Your task to perform on an android device: open app "Google Pay: Save, Pay, Manage" (install if not already installed) Image 0: 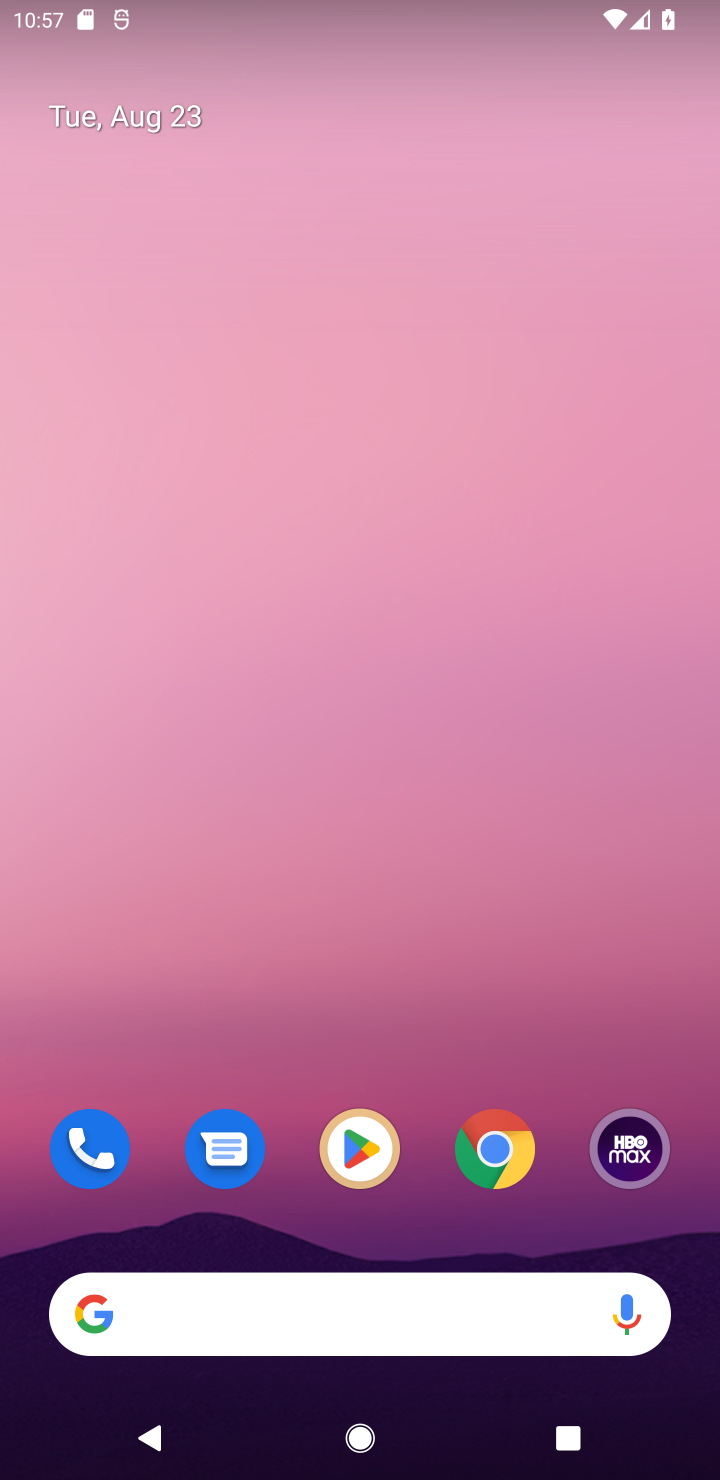
Step 0: click (358, 1176)
Your task to perform on an android device: open app "Google Pay: Save, Pay, Manage" (install if not already installed) Image 1: 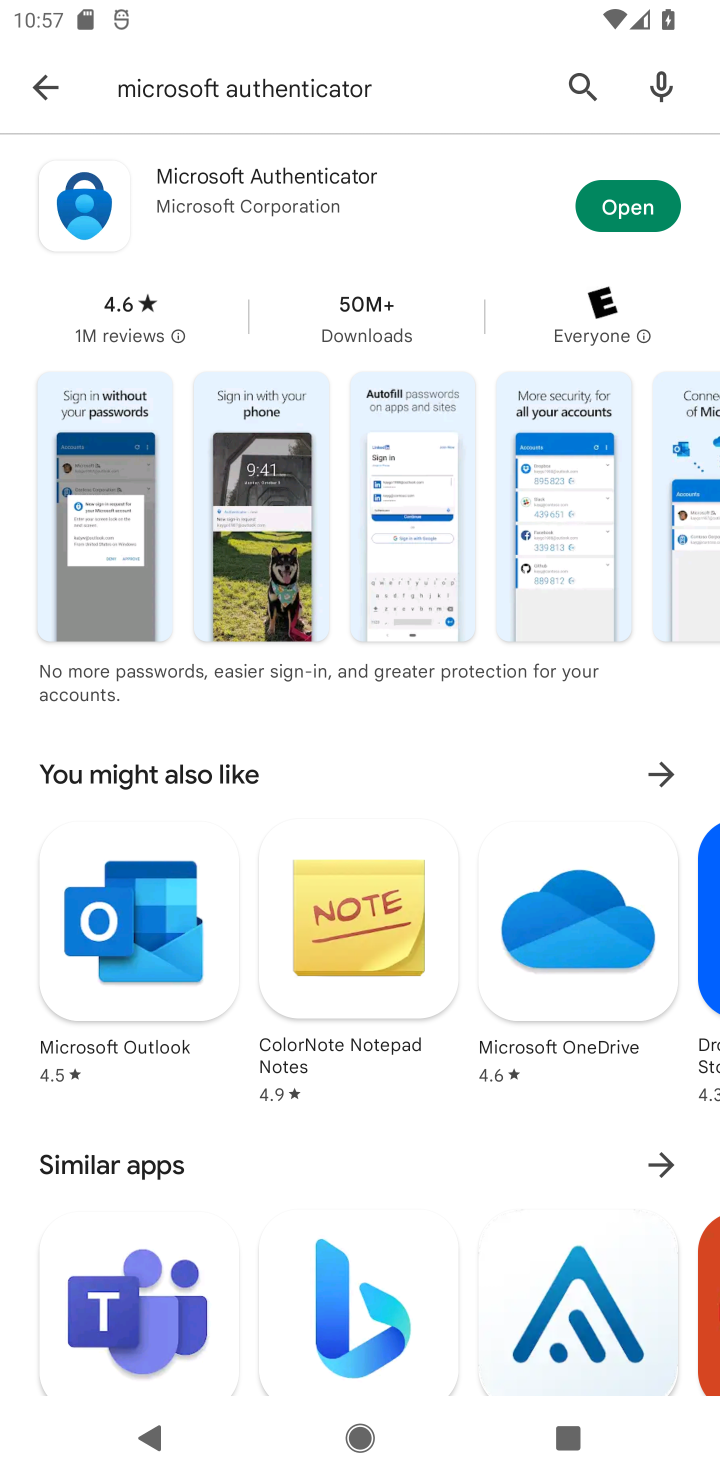
Step 1: click (590, 96)
Your task to perform on an android device: open app "Google Pay: Save, Pay, Manage" (install if not already installed) Image 2: 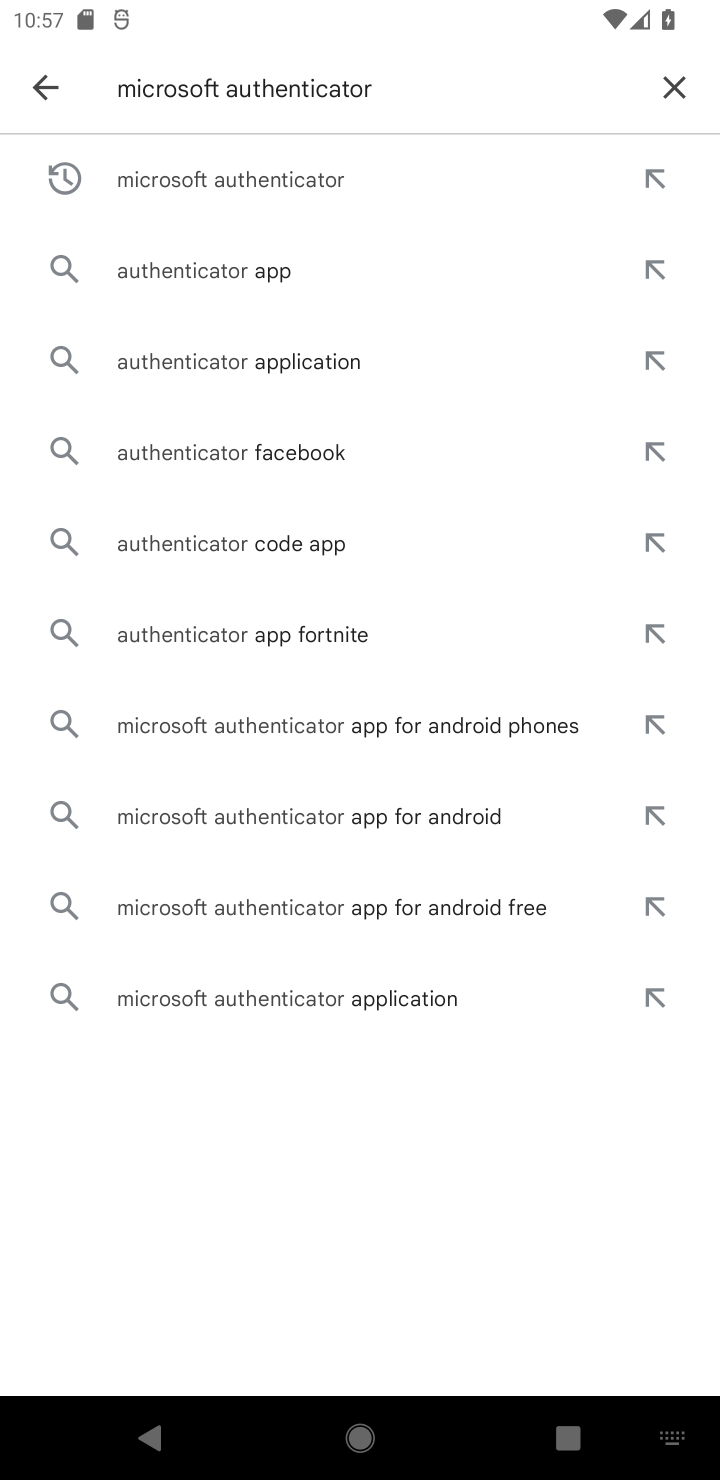
Step 2: click (665, 96)
Your task to perform on an android device: open app "Google Pay: Save, Pay, Manage" (install if not already installed) Image 3: 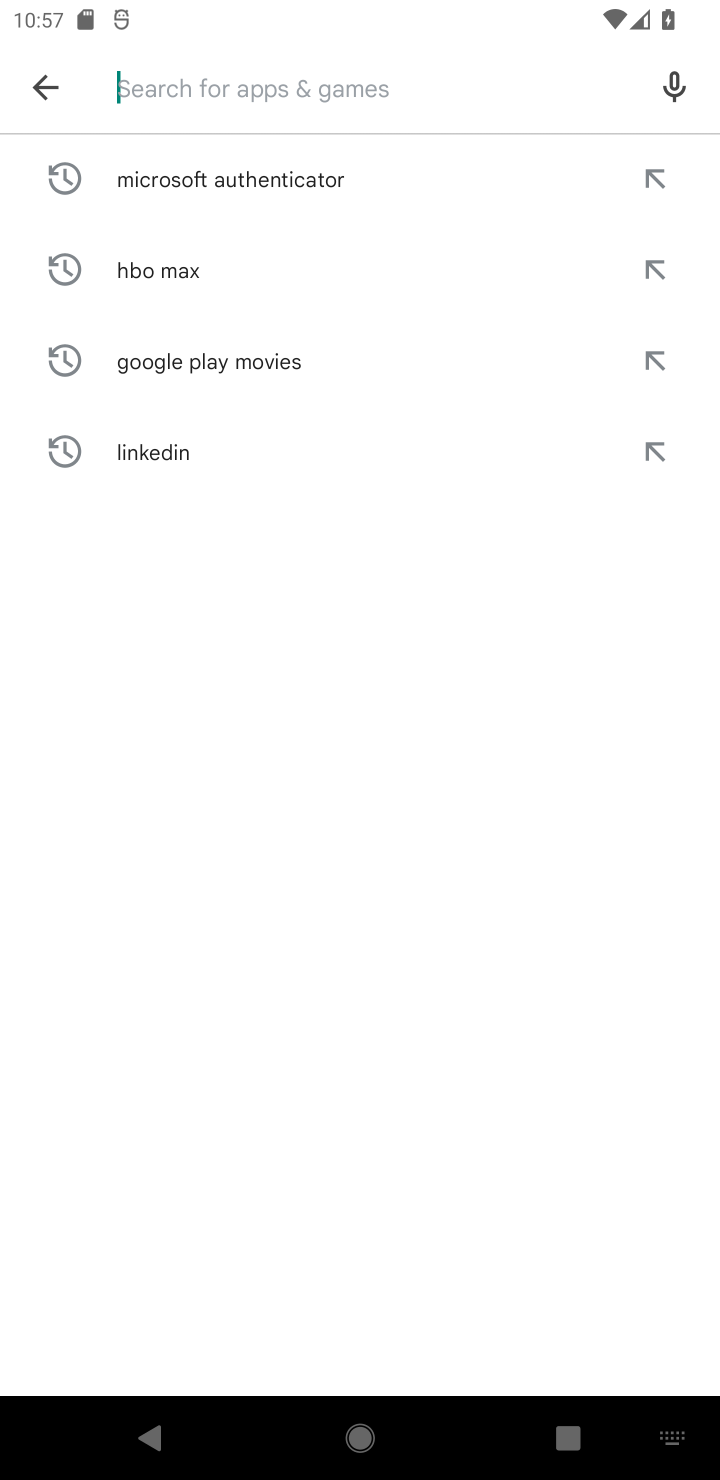
Step 3: type "google play"
Your task to perform on an android device: open app "Google Pay: Save, Pay, Manage" (install if not already installed) Image 4: 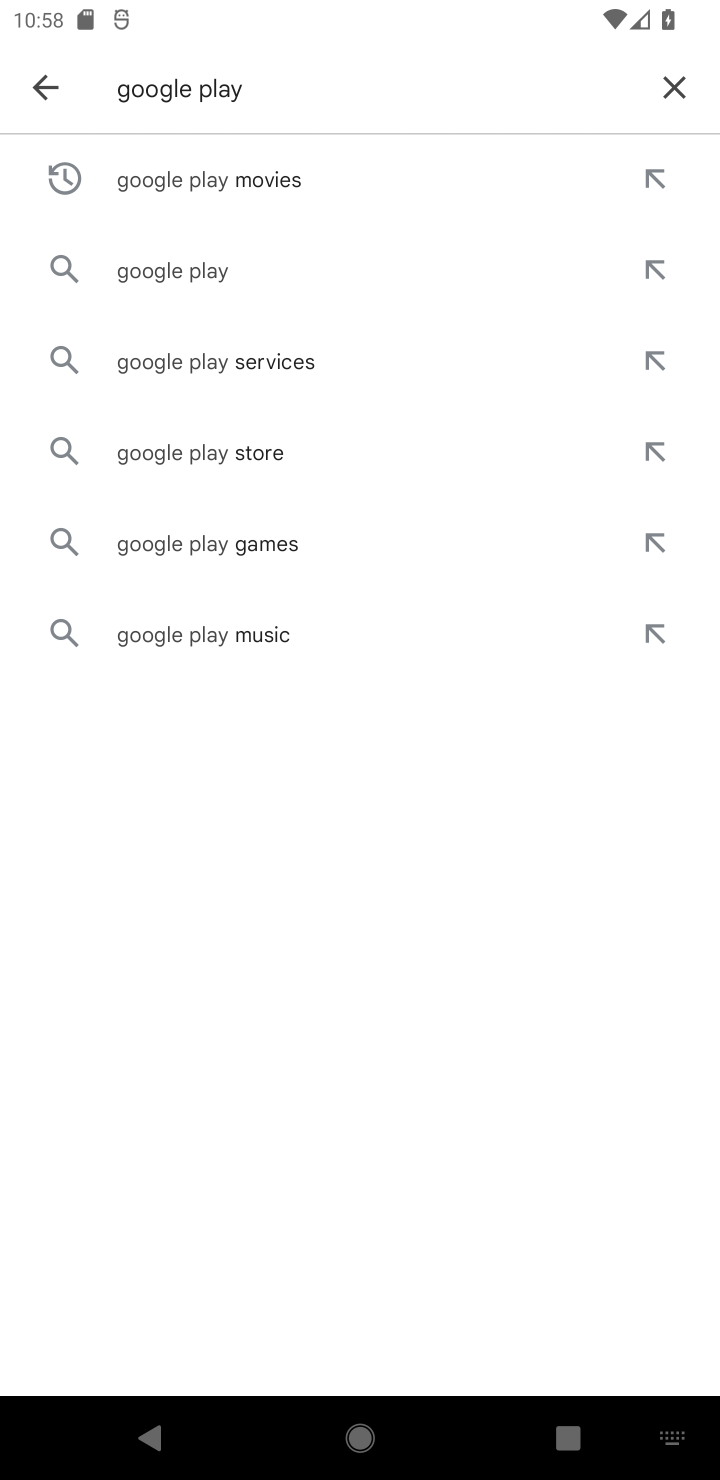
Step 4: click (296, 349)
Your task to perform on an android device: open app "Google Pay: Save, Pay, Manage" (install if not already installed) Image 5: 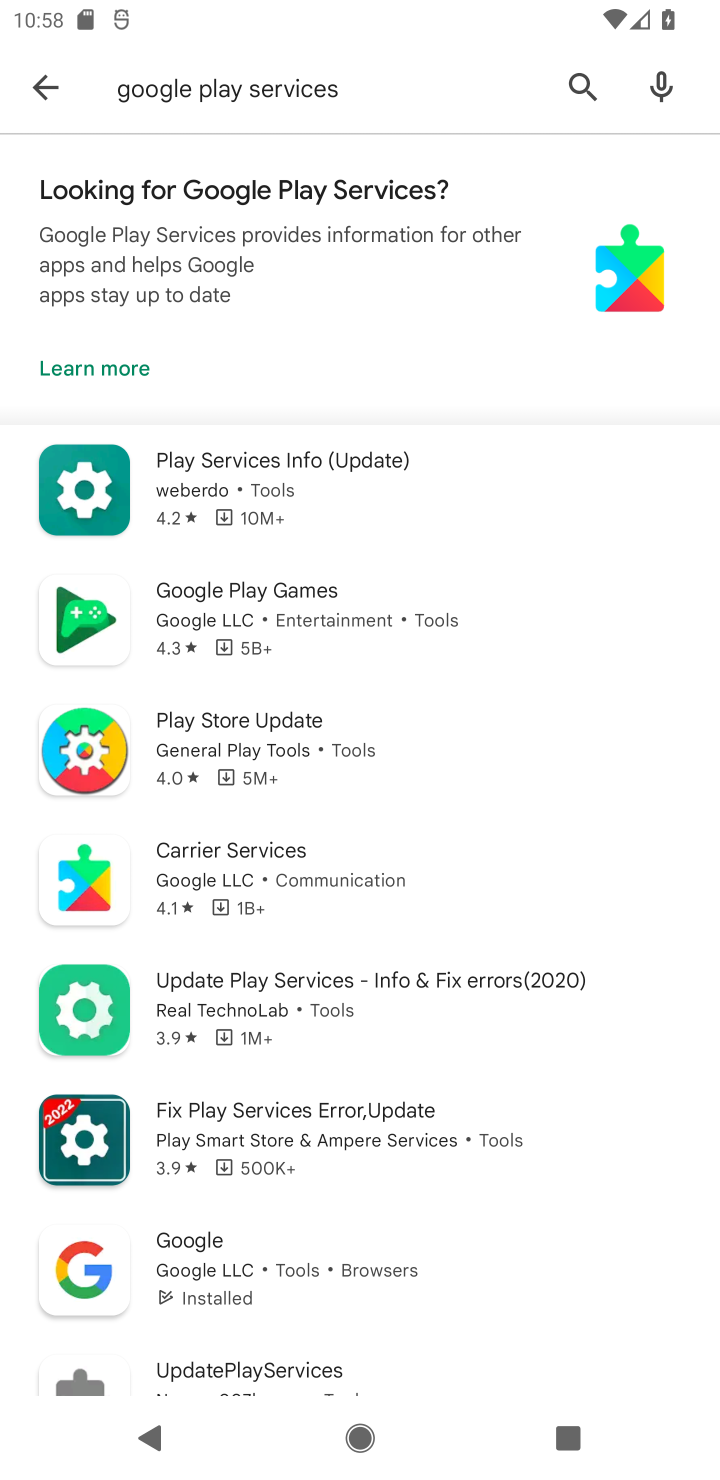
Step 5: task complete